Your task to perform on an android device: change the clock style Image 0: 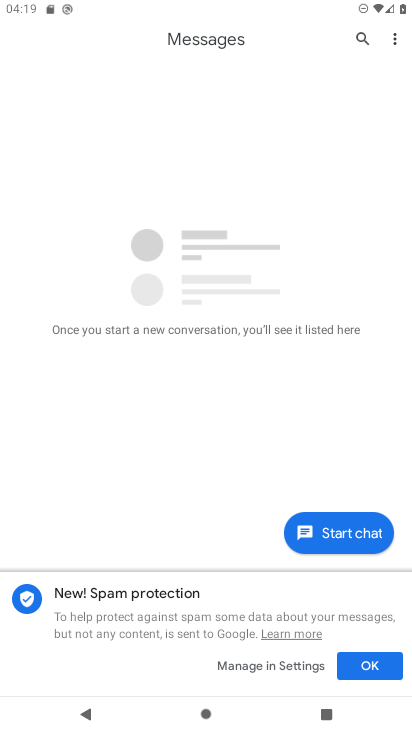
Step 0: press home button
Your task to perform on an android device: change the clock style Image 1: 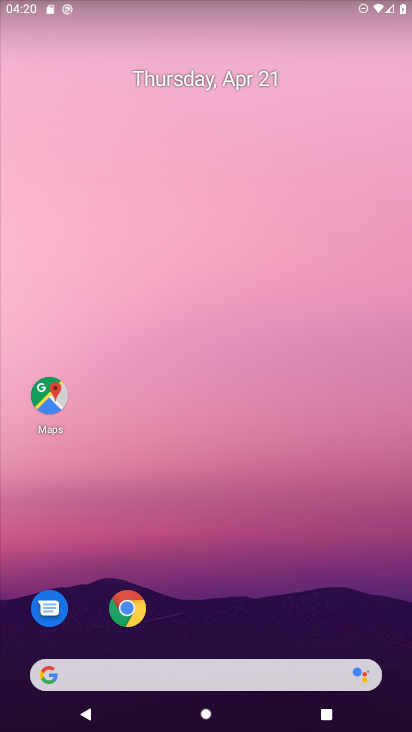
Step 1: drag from (211, 621) to (241, 185)
Your task to perform on an android device: change the clock style Image 2: 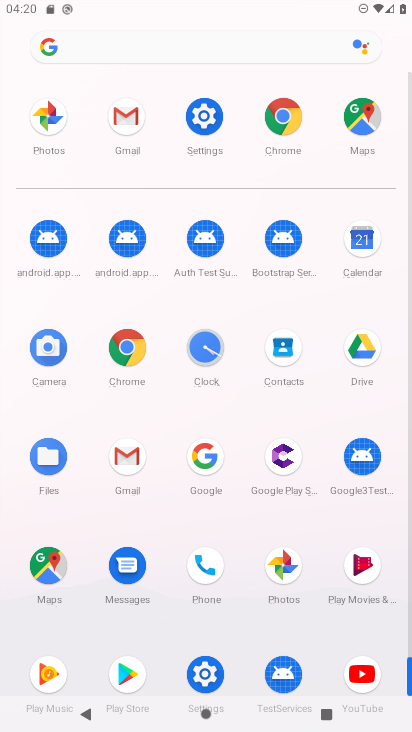
Step 2: click (196, 344)
Your task to perform on an android device: change the clock style Image 3: 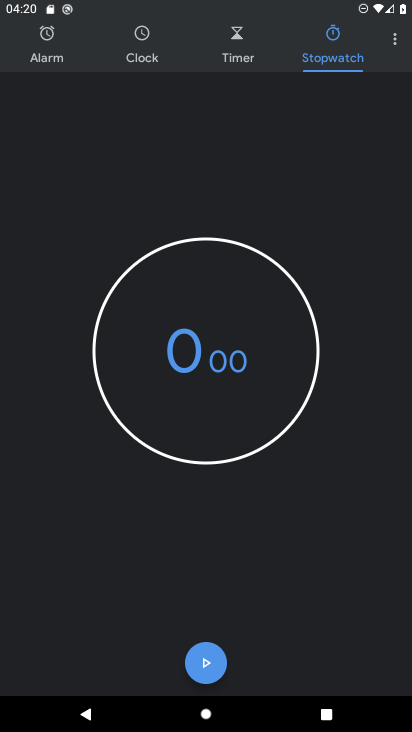
Step 3: click (386, 44)
Your task to perform on an android device: change the clock style Image 4: 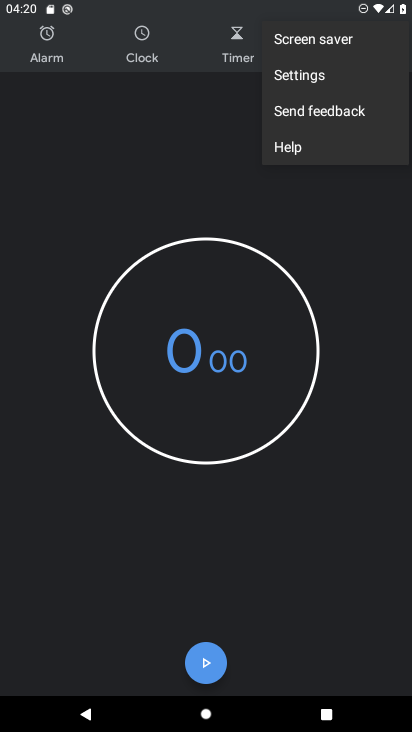
Step 4: click (311, 68)
Your task to perform on an android device: change the clock style Image 5: 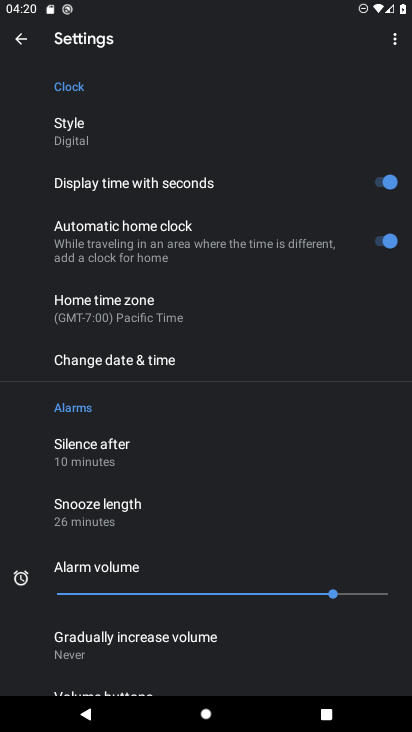
Step 5: click (82, 127)
Your task to perform on an android device: change the clock style Image 6: 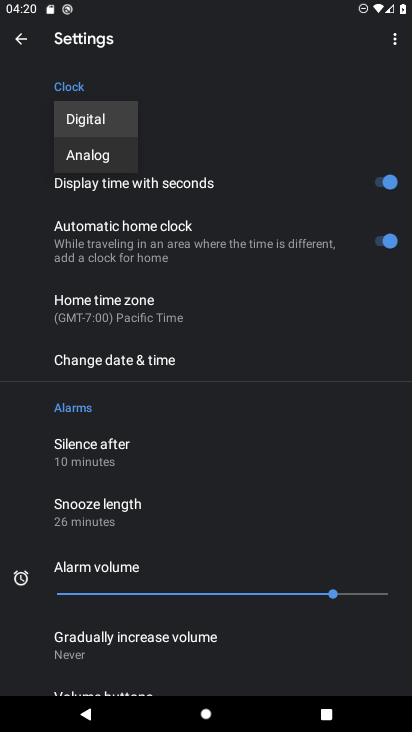
Step 6: click (117, 157)
Your task to perform on an android device: change the clock style Image 7: 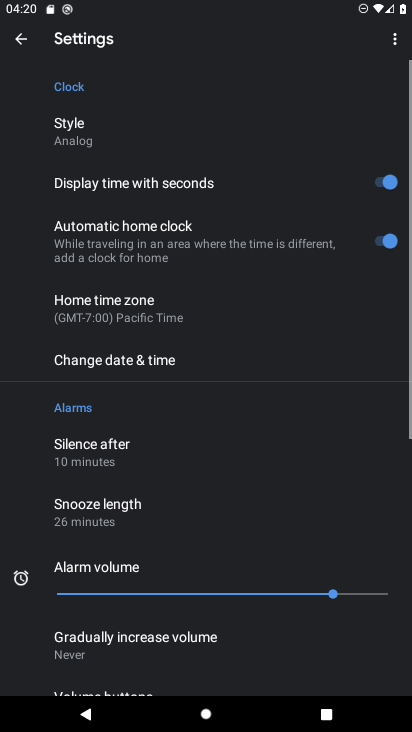
Step 7: task complete